Your task to perform on an android device: Search for 8K TVs on Best Buy. Image 0: 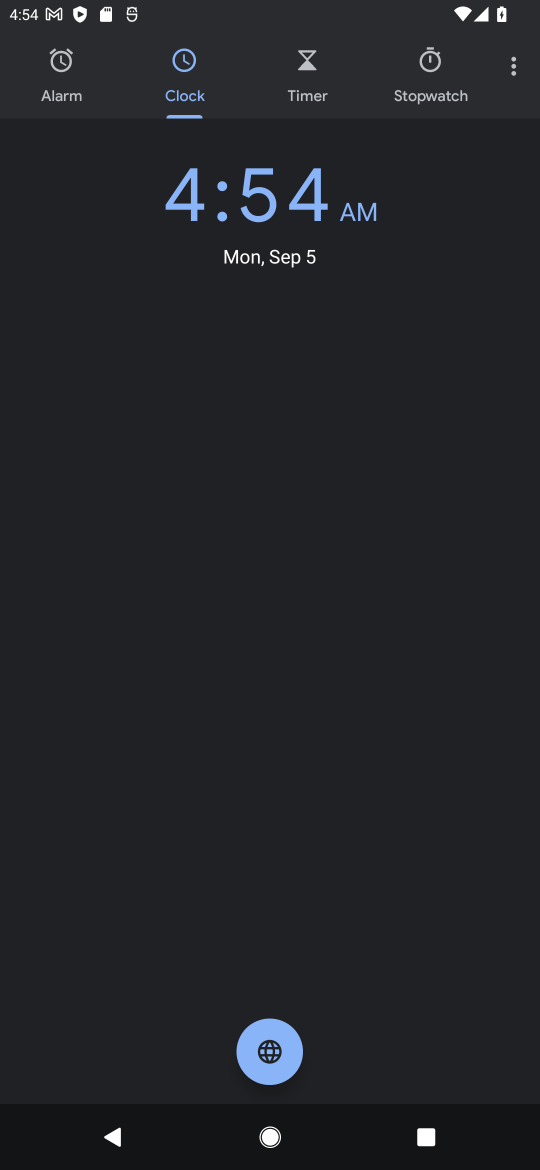
Step 0: press home button
Your task to perform on an android device: Search for 8K TVs on Best Buy. Image 1: 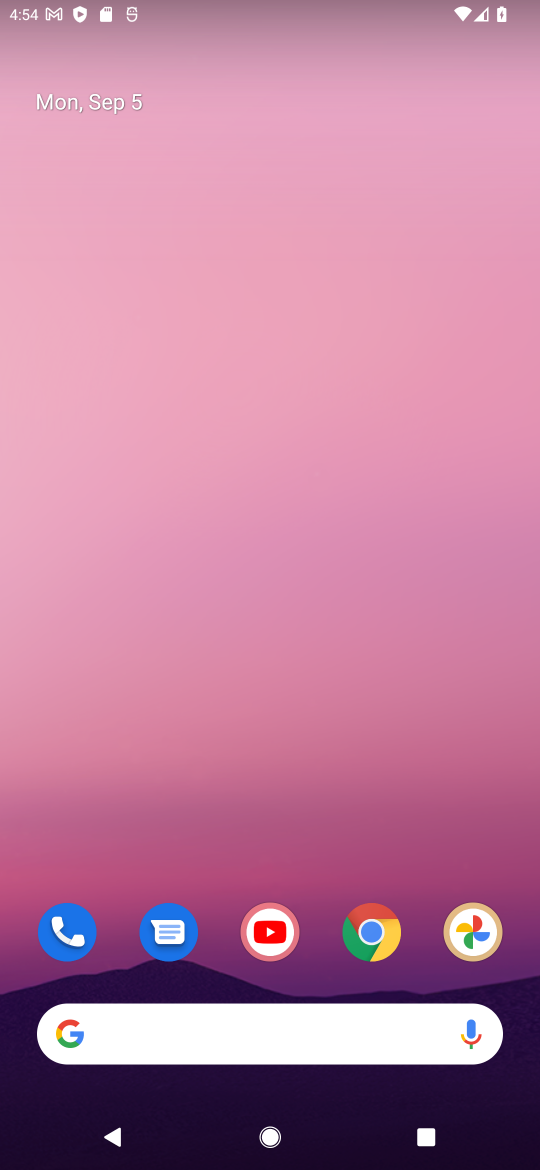
Step 1: click (370, 943)
Your task to perform on an android device: Search for 8K TVs on Best Buy. Image 2: 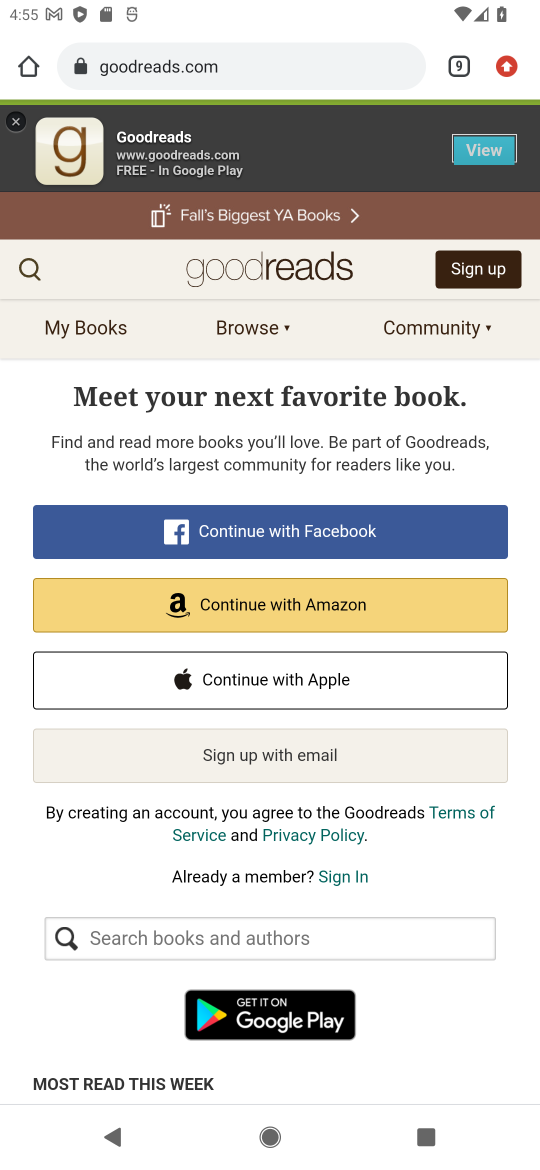
Step 2: drag from (505, 68) to (276, 208)
Your task to perform on an android device: Search for 8K TVs on Best Buy. Image 3: 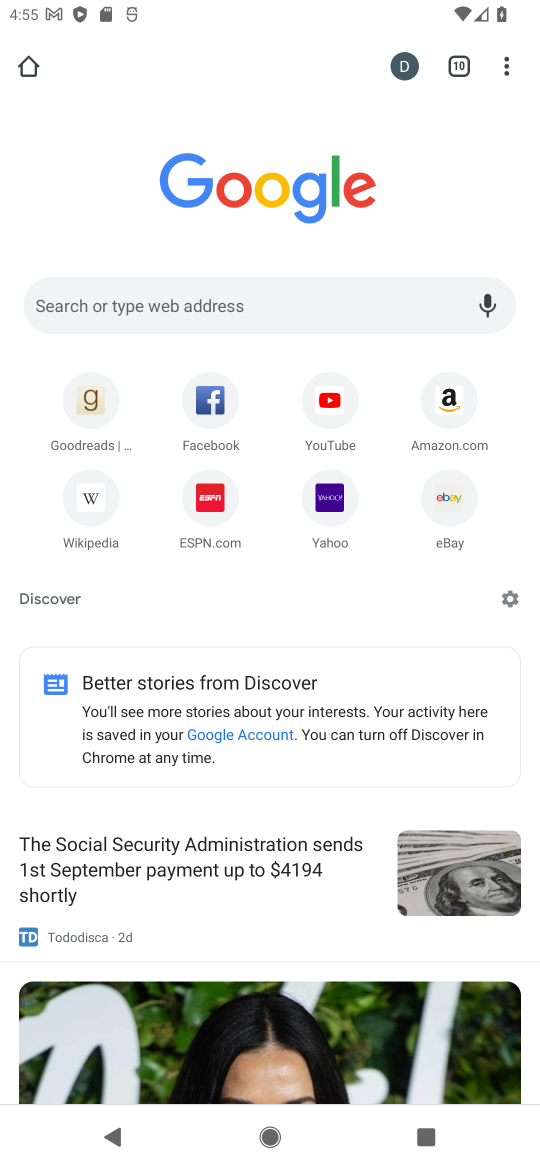
Step 3: click (145, 304)
Your task to perform on an android device: Search for 8K TVs on Best Buy. Image 4: 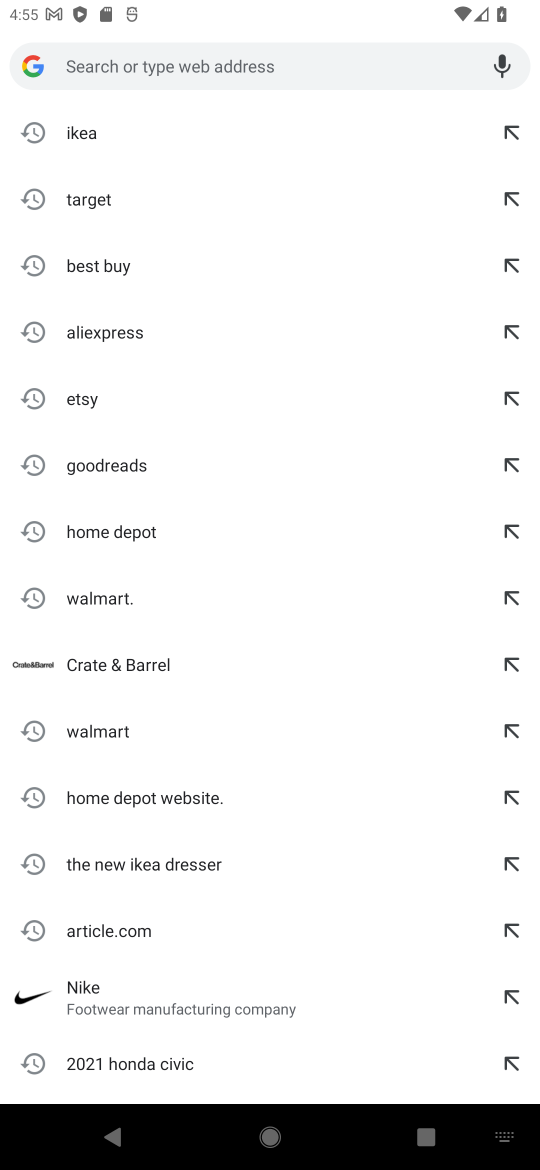
Step 4: type " Best Buy"
Your task to perform on an android device: Search for 8K TVs on Best Buy. Image 5: 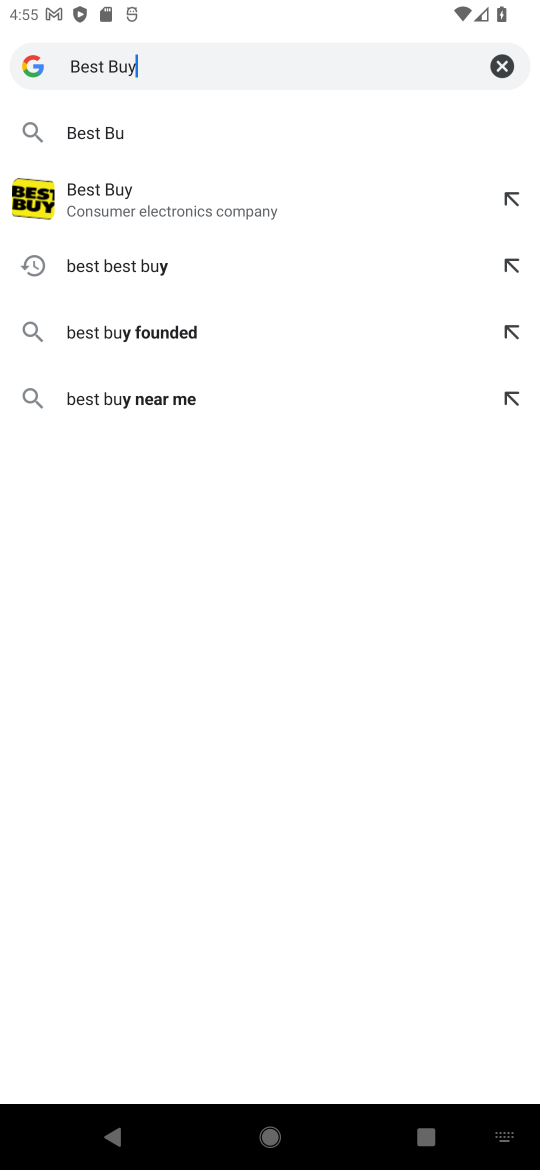
Step 5: type ""
Your task to perform on an android device: Search for 8K TVs on Best Buy. Image 6: 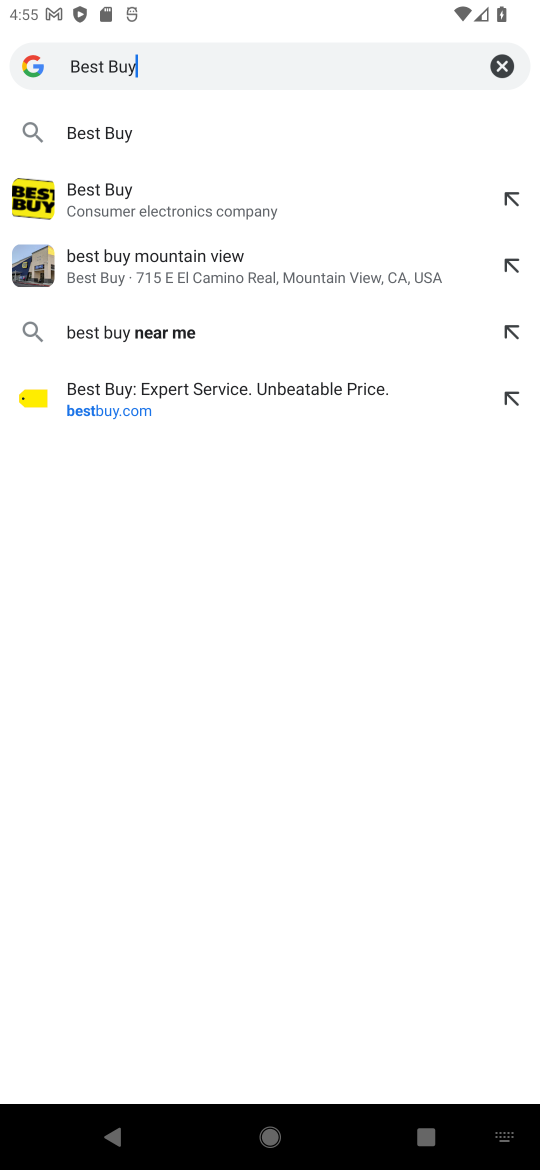
Step 6: click (110, 200)
Your task to perform on an android device: Search for 8K TVs on Best Buy. Image 7: 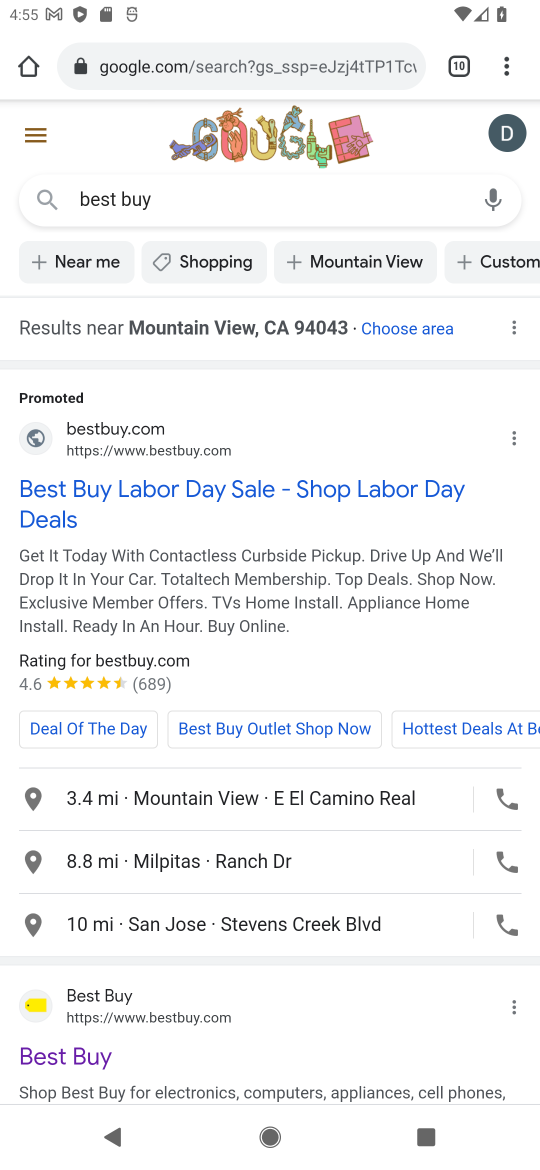
Step 7: click (54, 1055)
Your task to perform on an android device: Search for 8K TVs on Best Buy. Image 8: 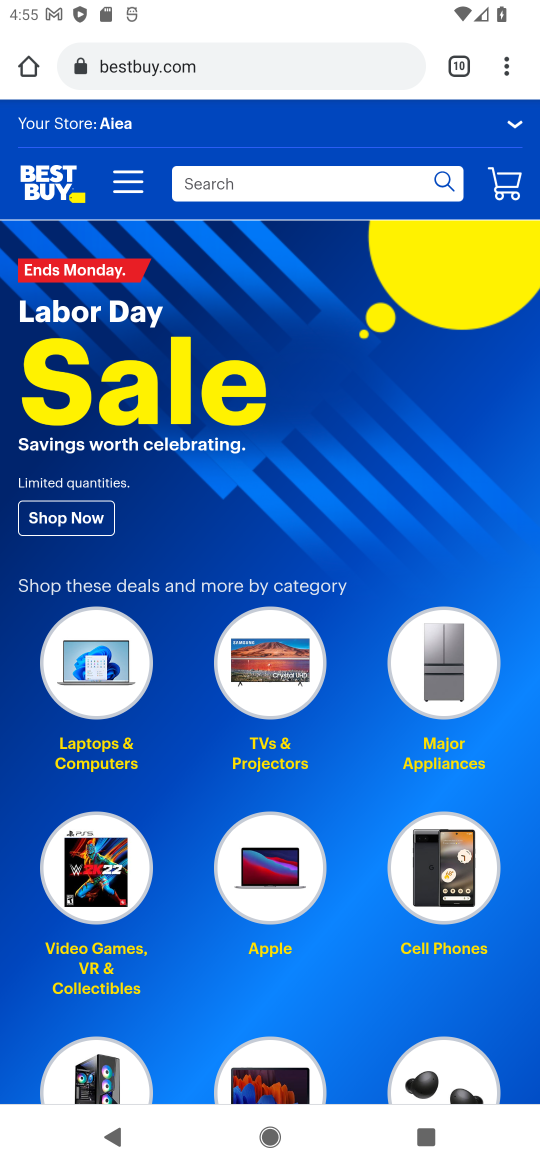
Step 8: click (245, 195)
Your task to perform on an android device: Search for 8K TVs on Best Buy. Image 9: 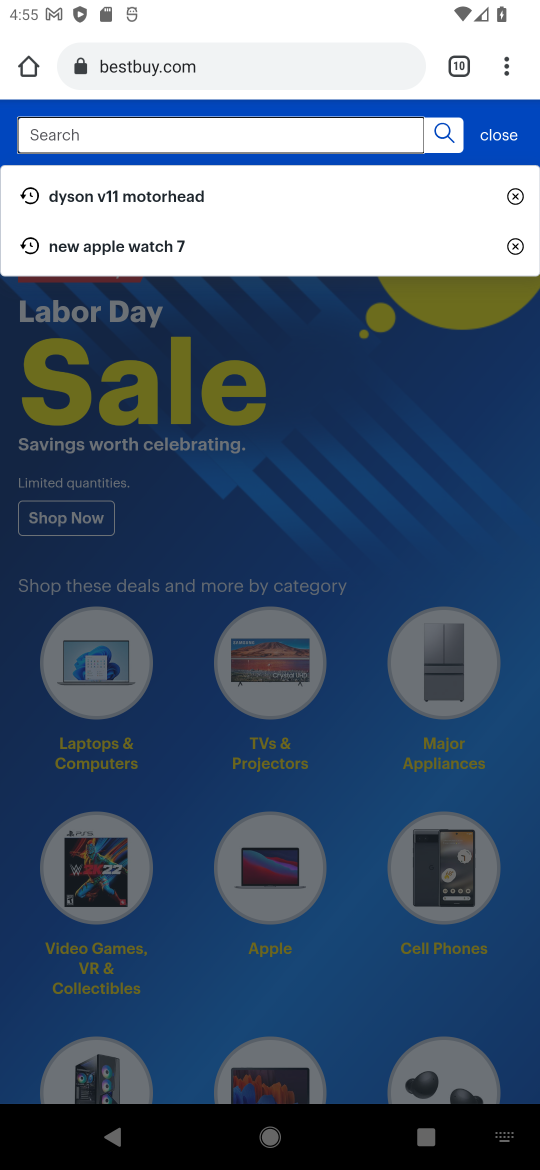
Step 9: type " 8K TVs"
Your task to perform on an android device: Search for 8K TVs on Best Buy. Image 10: 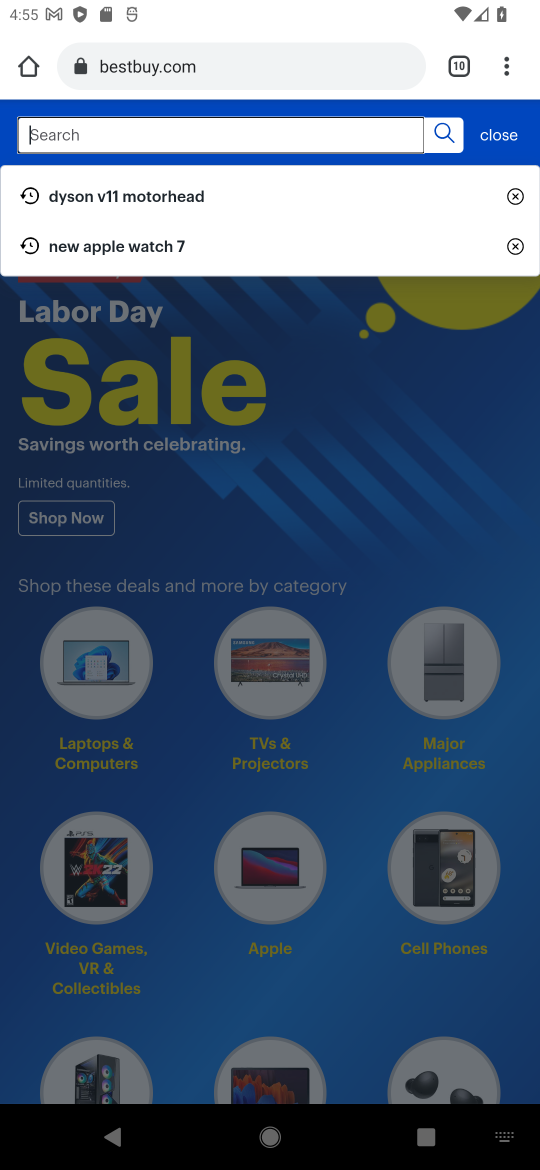
Step 10: type ""
Your task to perform on an android device: Search for 8K TVs on Best Buy. Image 11: 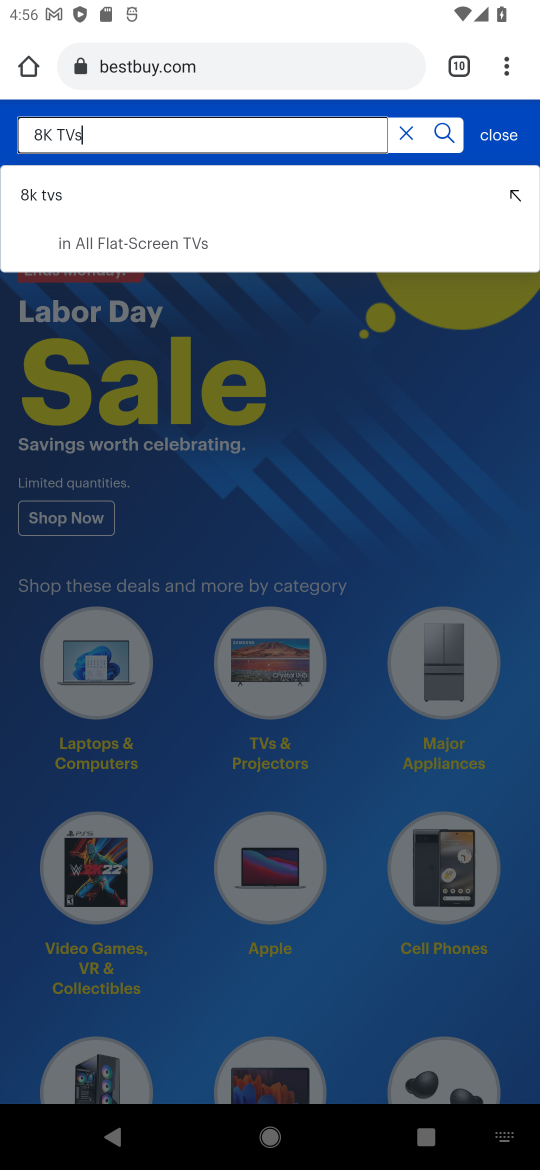
Step 11: click (40, 198)
Your task to perform on an android device: Search for 8K TVs on Best Buy. Image 12: 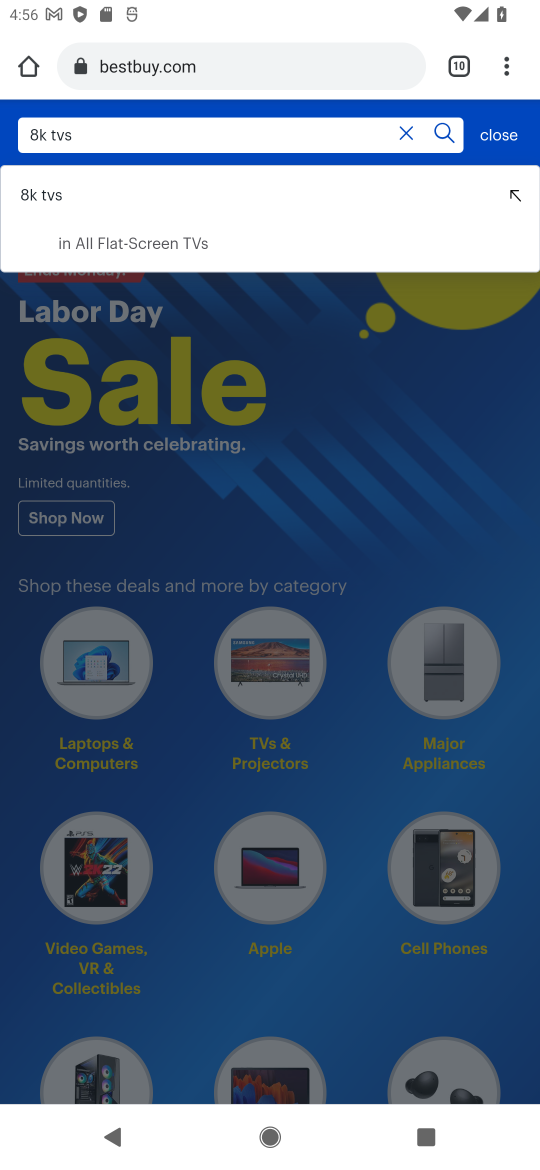
Step 12: click (34, 195)
Your task to perform on an android device: Search for 8K TVs on Best Buy. Image 13: 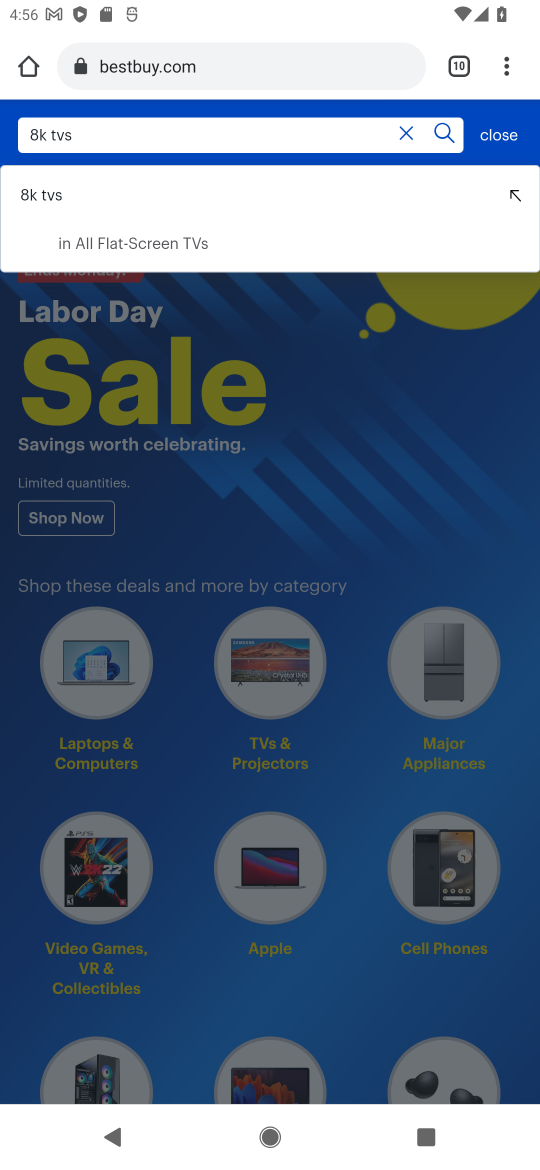
Step 13: click (47, 189)
Your task to perform on an android device: Search for 8K TVs on Best Buy. Image 14: 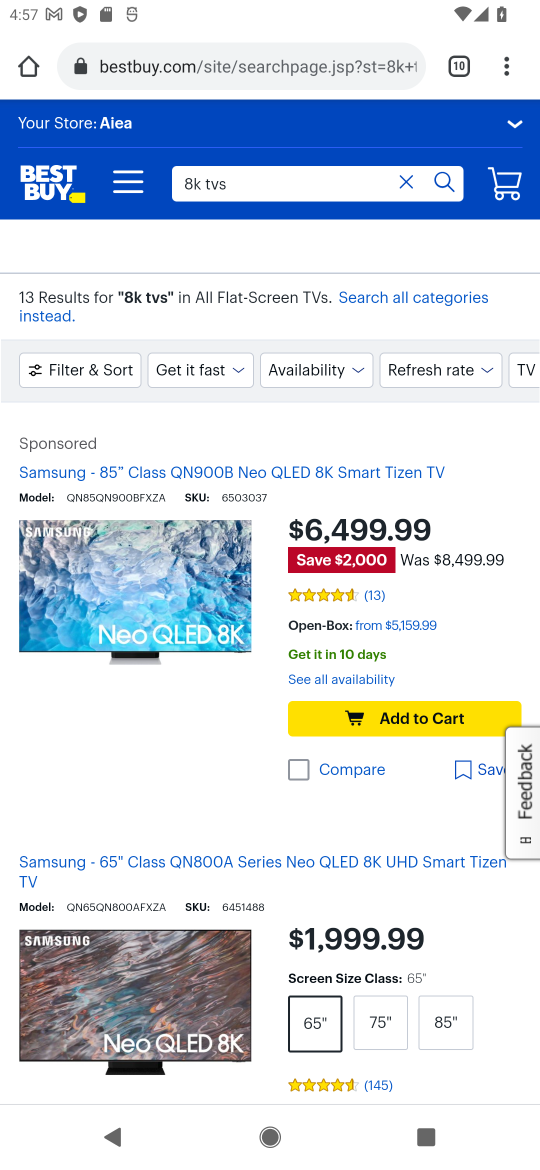
Step 14: task complete